Your task to perform on an android device: Go to accessibility settings Image 0: 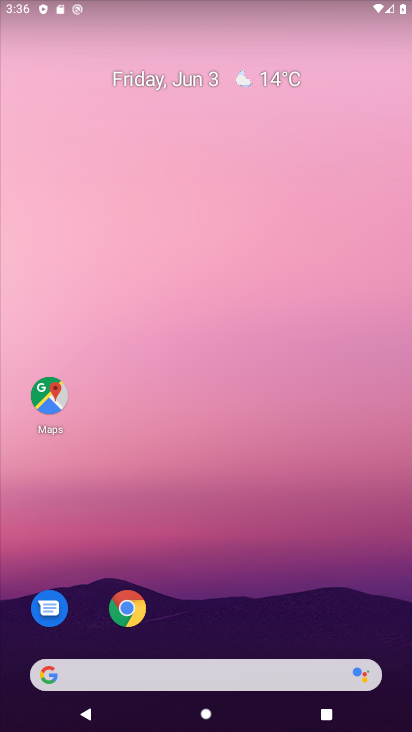
Step 0: drag from (198, 654) to (188, 214)
Your task to perform on an android device: Go to accessibility settings Image 1: 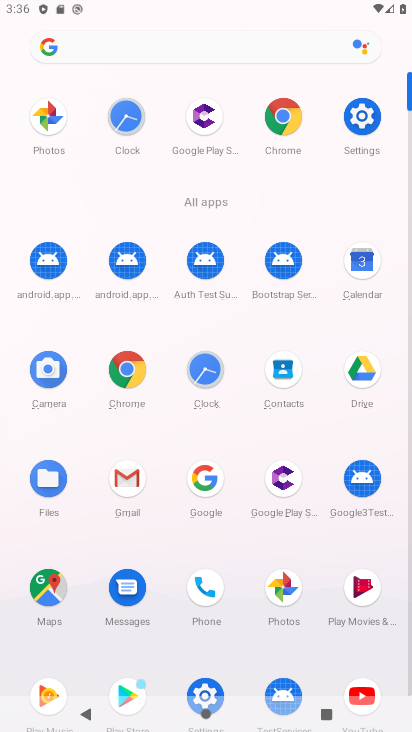
Step 1: click (364, 119)
Your task to perform on an android device: Go to accessibility settings Image 2: 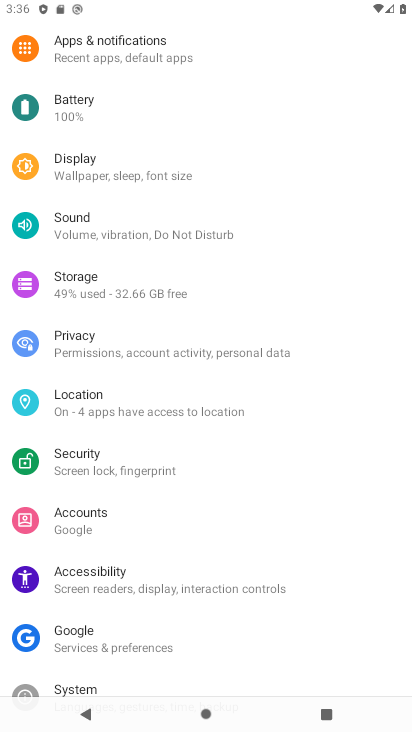
Step 2: click (111, 587)
Your task to perform on an android device: Go to accessibility settings Image 3: 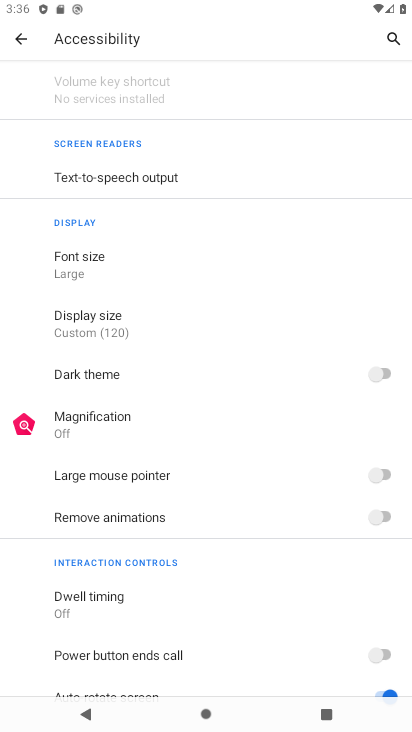
Step 3: task complete